Your task to perform on an android device: stop showing notifications on the lock screen Image 0: 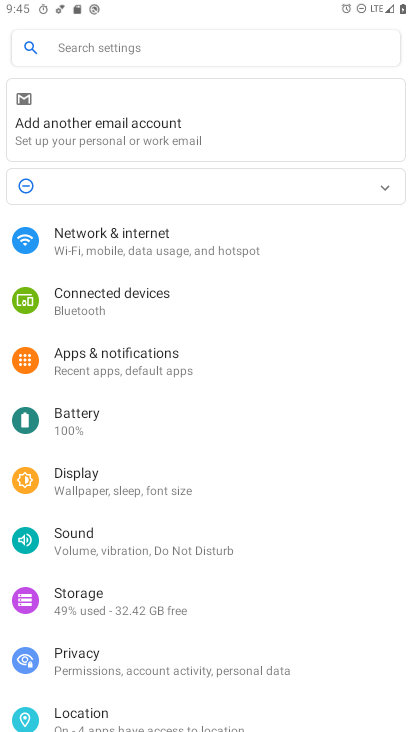
Step 0: click (108, 363)
Your task to perform on an android device: stop showing notifications on the lock screen Image 1: 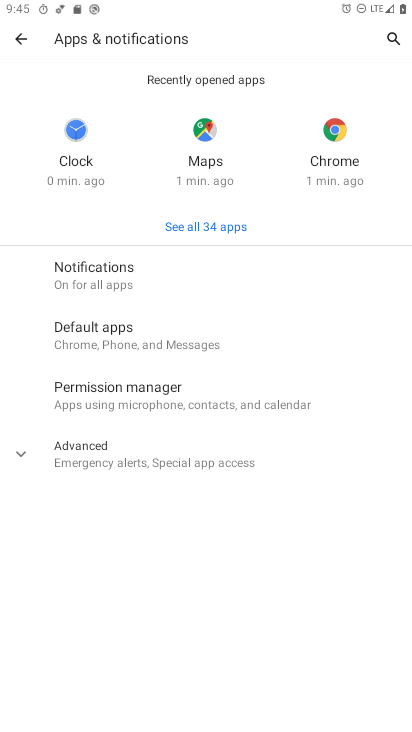
Step 1: click (99, 288)
Your task to perform on an android device: stop showing notifications on the lock screen Image 2: 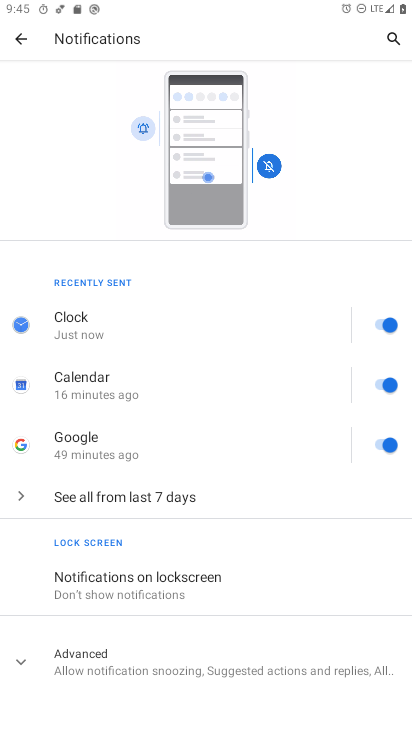
Step 2: drag from (153, 630) to (151, 367)
Your task to perform on an android device: stop showing notifications on the lock screen Image 3: 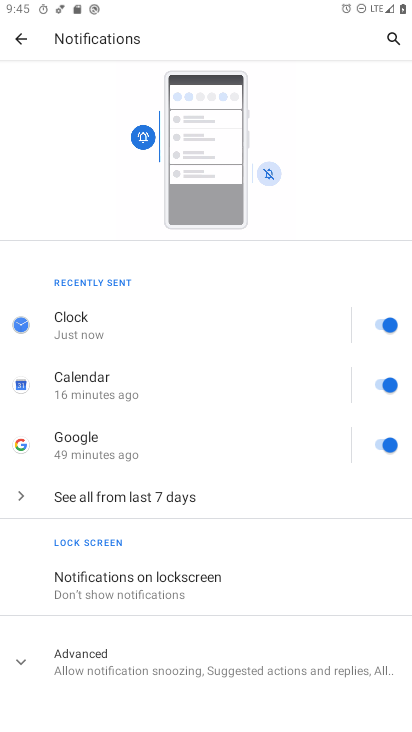
Step 3: click (118, 601)
Your task to perform on an android device: stop showing notifications on the lock screen Image 4: 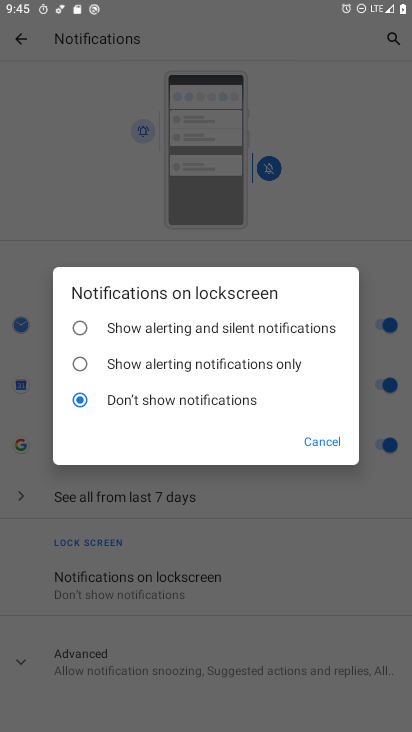
Step 4: click (250, 507)
Your task to perform on an android device: stop showing notifications on the lock screen Image 5: 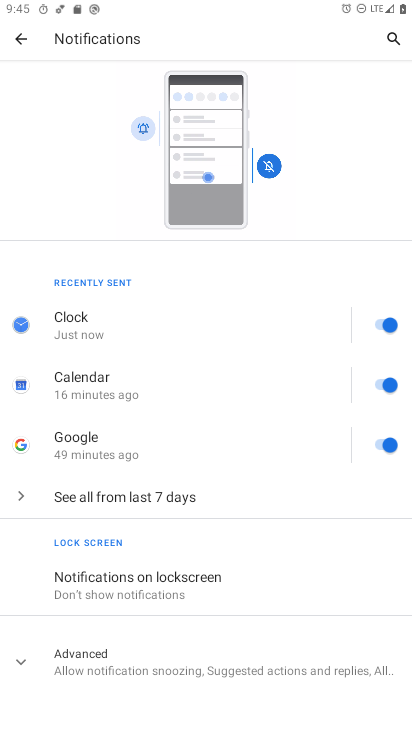
Step 5: task complete